Your task to perform on an android device: Open CNN.com Image 0: 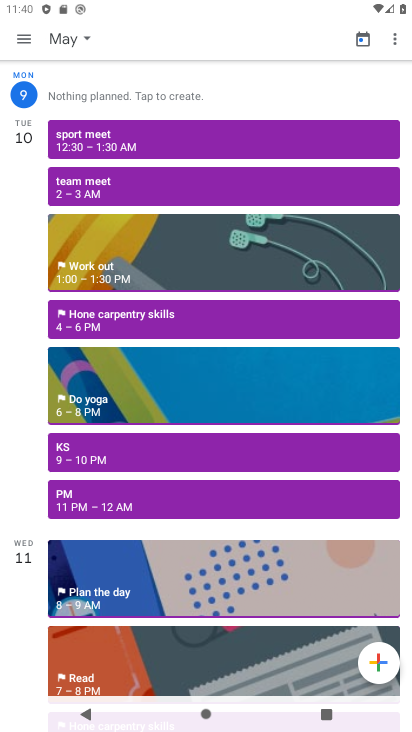
Step 0: press home button
Your task to perform on an android device: Open CNN.com Image 1: 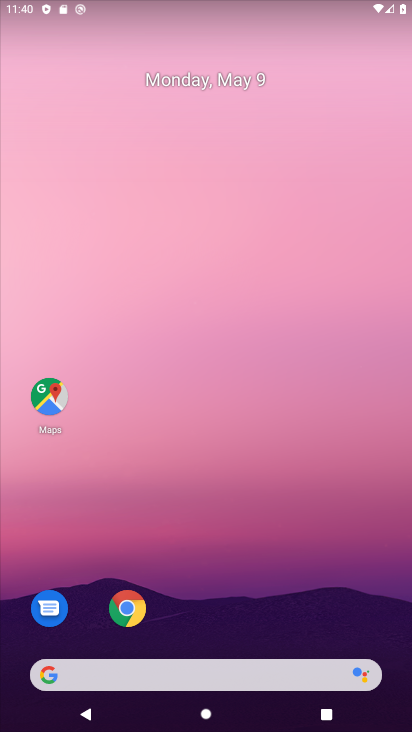
Step 1: click (134, 600)
Your task to perform on an android device: Open CNN.com Image 2: 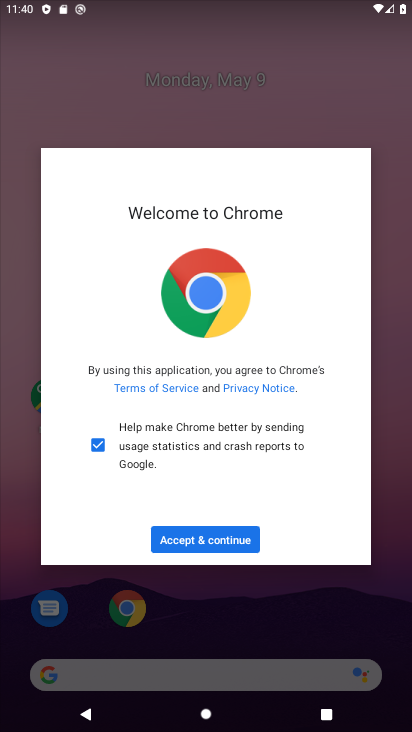
Step 2: click (174, 529)
Your task to perform on an android device: Open CNN.com Image 3: 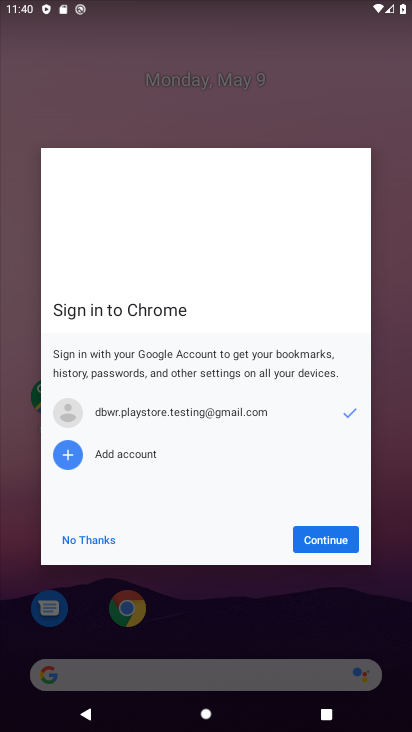
Step 3: click (318, 546)
Your task to perform on an android device: Open CNN.com Image 4: 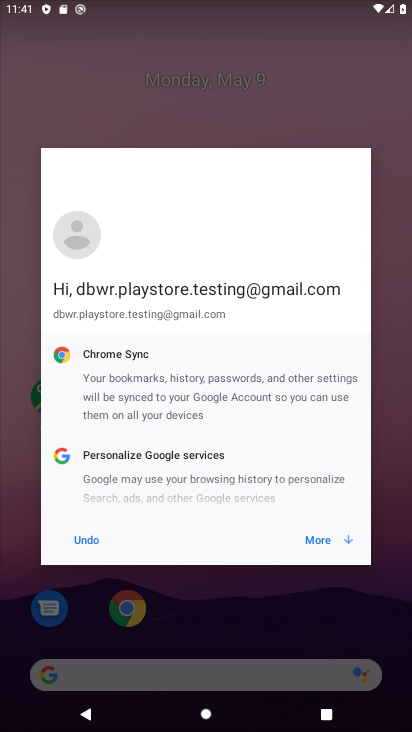
Step 4: click (345, 536)
Your task to perform on an android device: Open CNN.com Image 5: 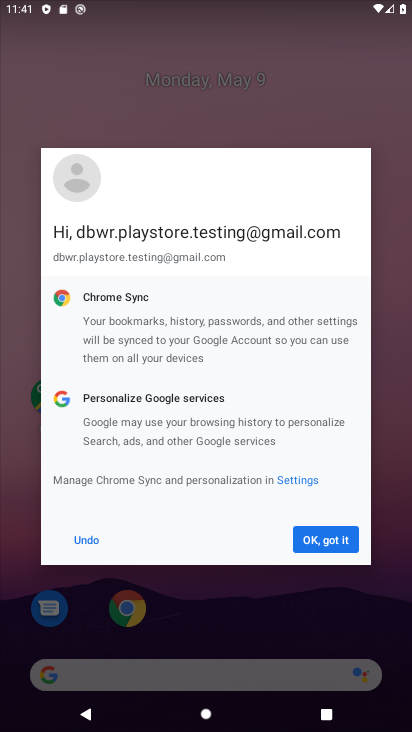
Step 5: click (347, 524)
Your task to perform on an android device: Open CNN.com Image 6: 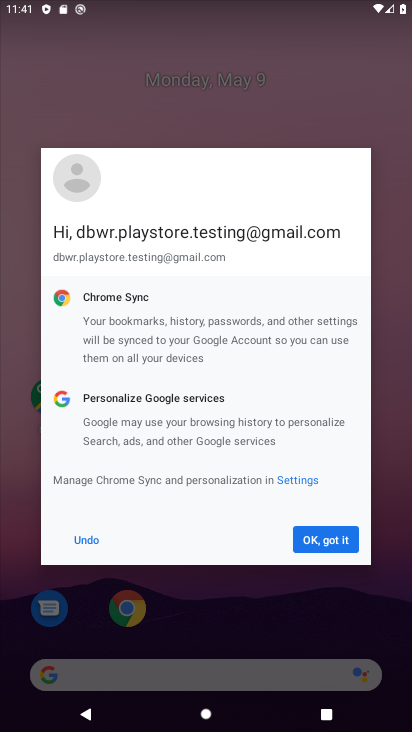
Step 6: click (312, 536)
Your task to perform on an android device: Open CNN.com Image 7: 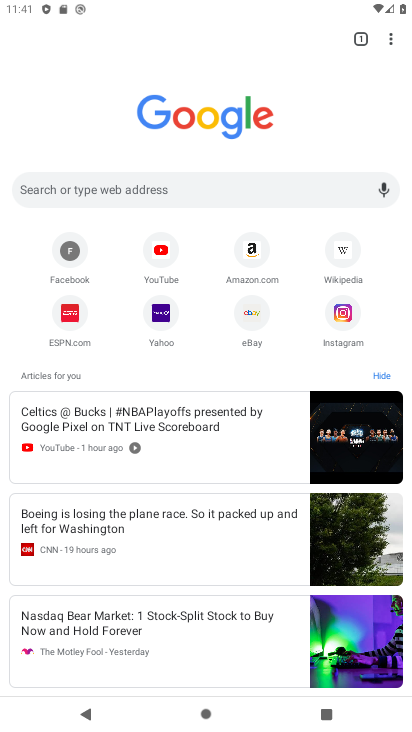
Step 7: click (158, 204)
Your task to perform on an android device: Open CNN.com Image 8: 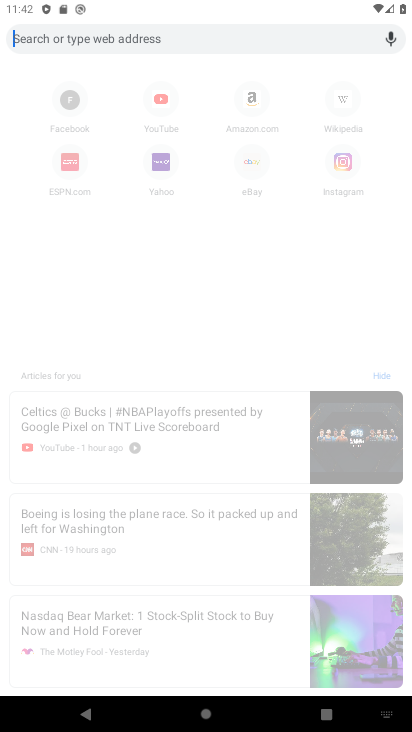
Step 8: type "cnn.com"
Your task to perform on an android device: Open CNN.com Image 9: 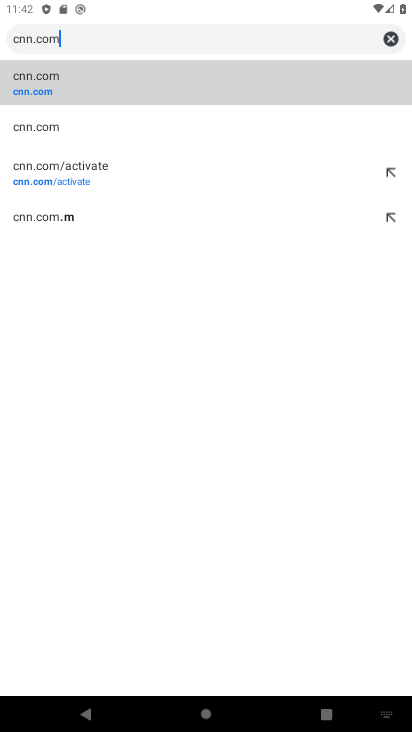
Step 9: click (223, 79)
Your task to perform on an android device: Open CNN.com Image 10: 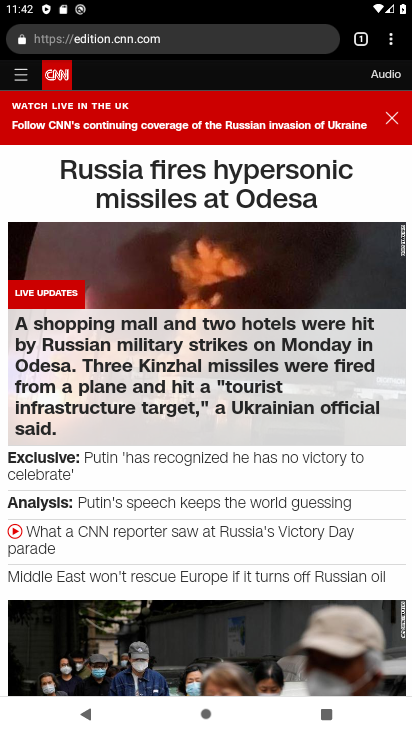
Step 10: task complete